Your task to perform on an android device: turn off notifications settings in the gmail app Image 0: 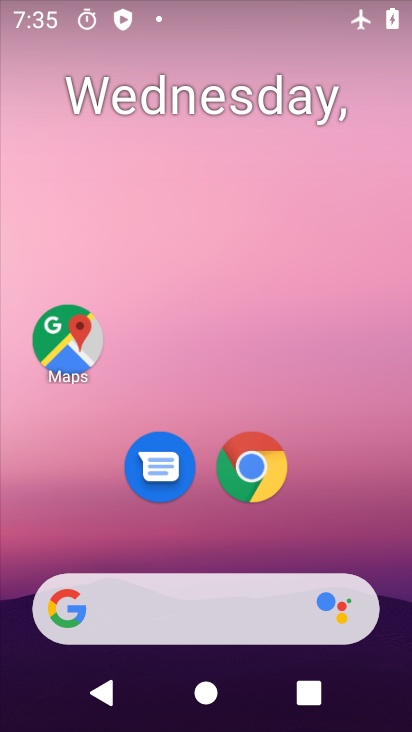
Step 0: drag from (341, 293) to (332, 143)
Your task to perform on an android device: turn off notifications settings in the gmail app Image 1: 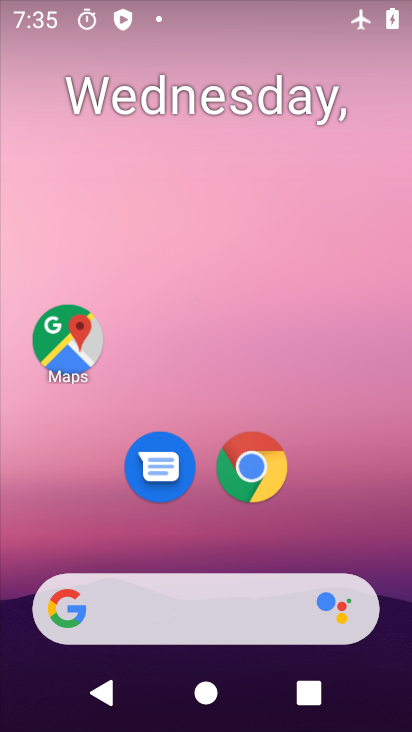
Step 1: drag from (386, 408) to (356, 148)
Your task to perform on an android device: turn off notifications settings in the gmail app Image 2: 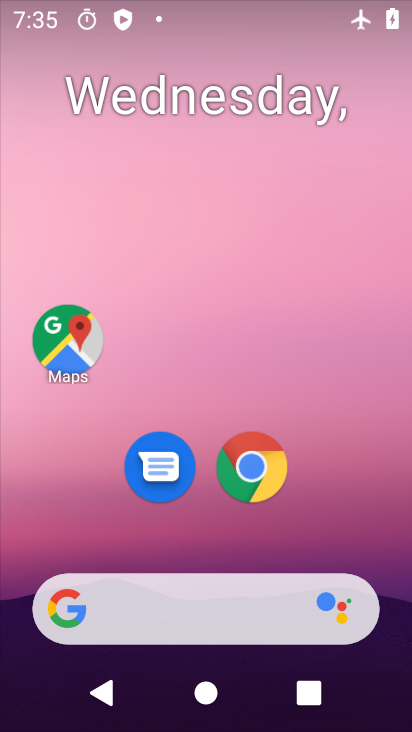
Step 2: drag from (367, 219) to (358, 107)
Your task to perform on an android device: turn off notifications settings in the gmail app Image 3: 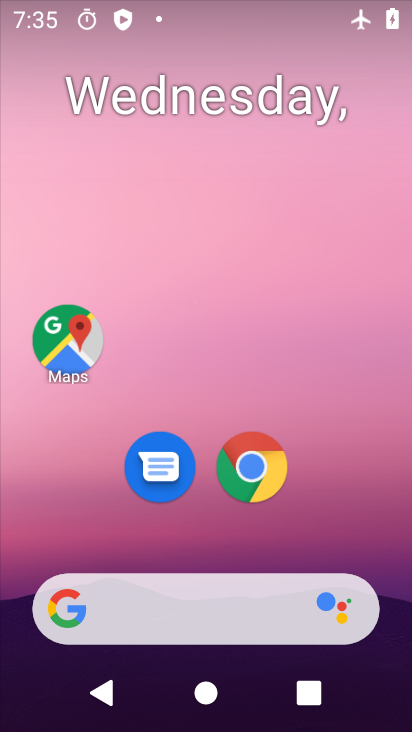
Step 3: drag from (392, 294) to (372, 107)
Your task to perform on an android device: turn off notifications settings in the gmail app Image 4: 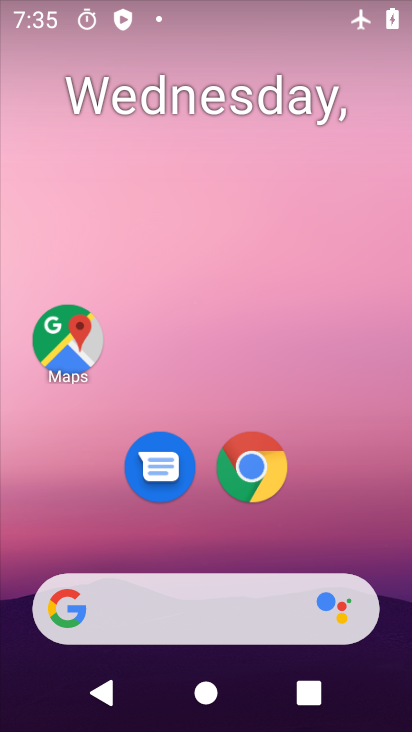
Step 4: drag from (371, 214) to (327, 70)
Your task to perform on an android device: turn off notifications settings in the gmail app Image 5: 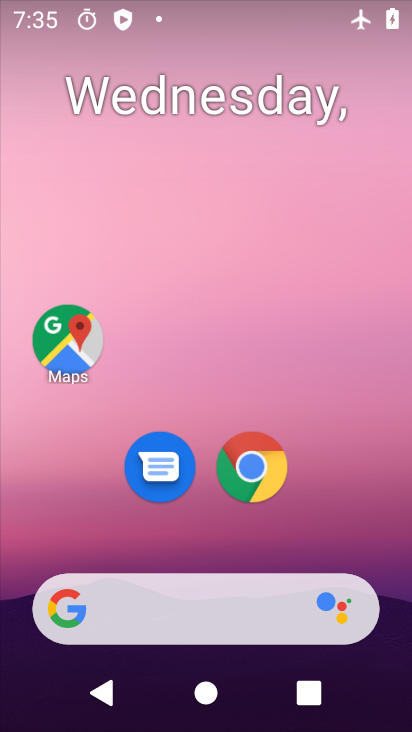
Step 5: drag from (356, 225) to (343, 115)
Your task to perform on an android device: turn off notifications settings in the gmail app Image 6: 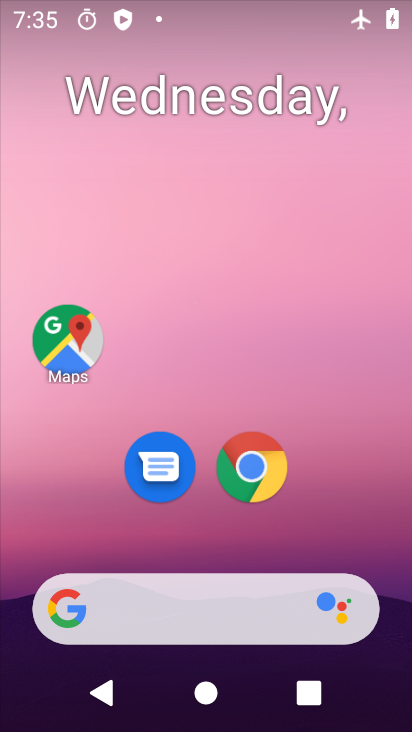
Step 6: drag from (371, 142) to (360, 74)
Your task to perform on an android device: turn off notifications settings in the gmail app Image 7: 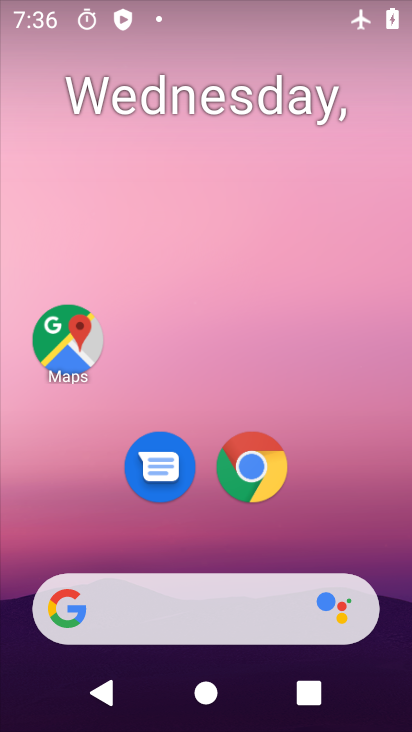
Step 7: drag from (377, 548) to (337, 121)
Your task to perform on an android device: turn off notifications settings in the gmail app Image 8: 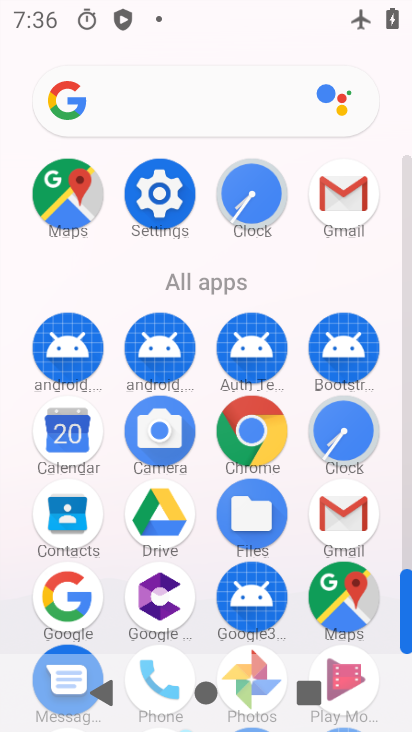
Step 8: click (335, 205)
Your task to perform on an android device: turn off notifications settings in the gmail app Image 9: 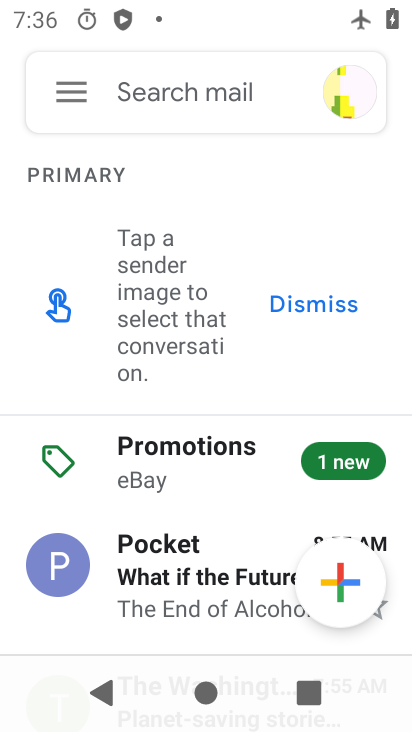
Step 9: click (69, 86)
Your task to perform on an android device: turn off notifications settings in the gmail app Image 10: 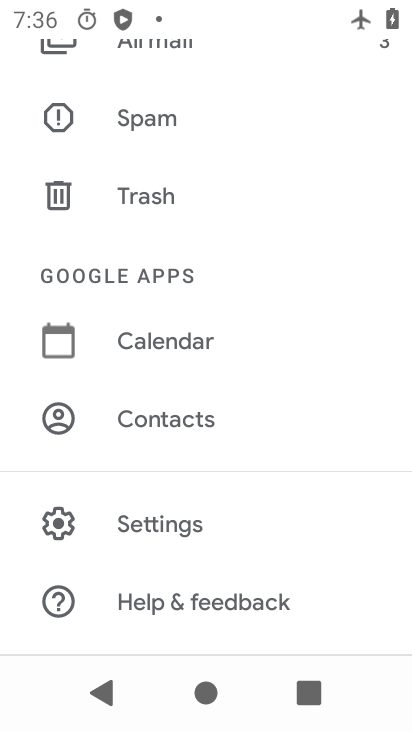
Step 10: click (133, 516)
Your task to perform on an android device: turn off notifications settings in the gmail app Image 11: 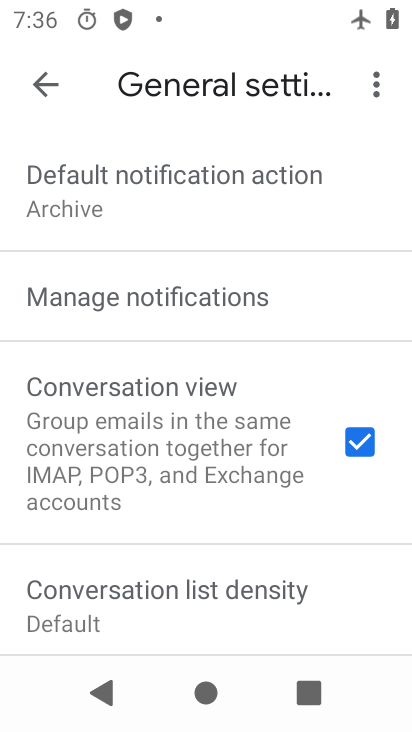
Step 11: click (68, 293)
Your task to perform on an android device: turn off notifications settings in the gmail app Image 12: 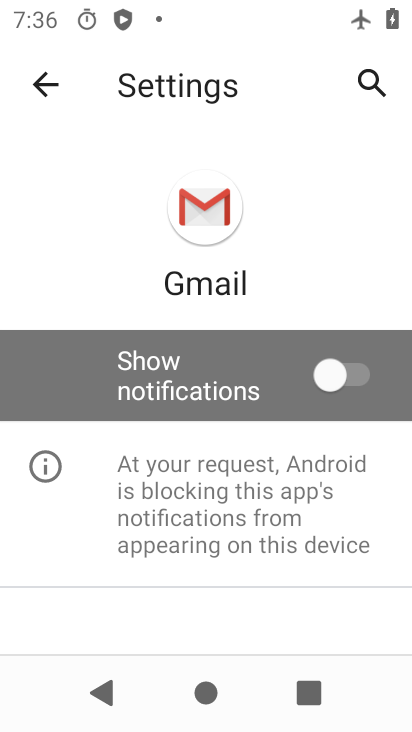
Step 12: task complete